Your task to perform on an android device: toggle javascript in the chrome app Image 0: 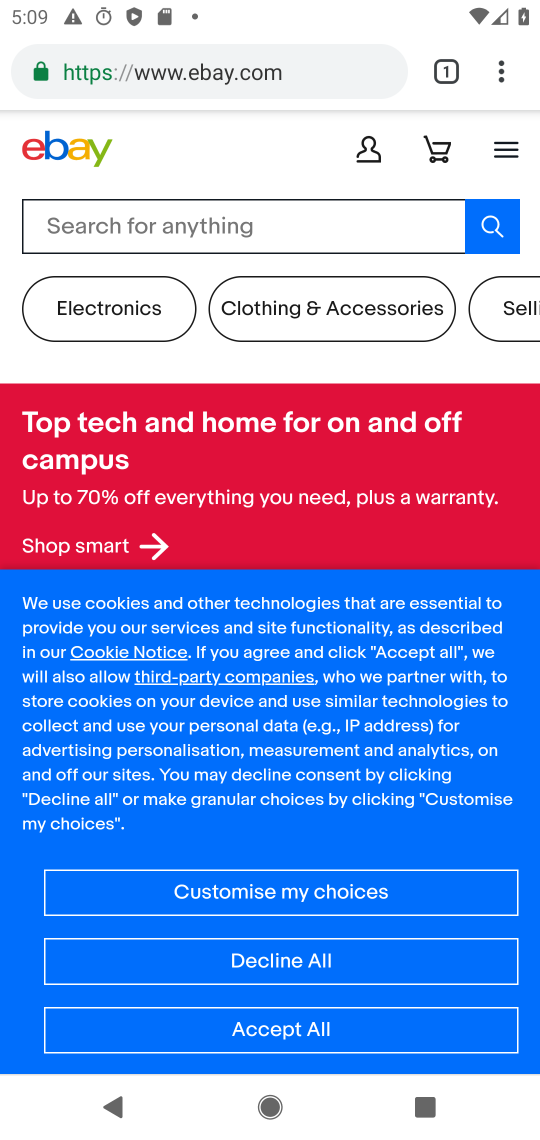
Step 0: press home button
Your task to perform on an android device: toggle javascript in the chrome app Image 1: 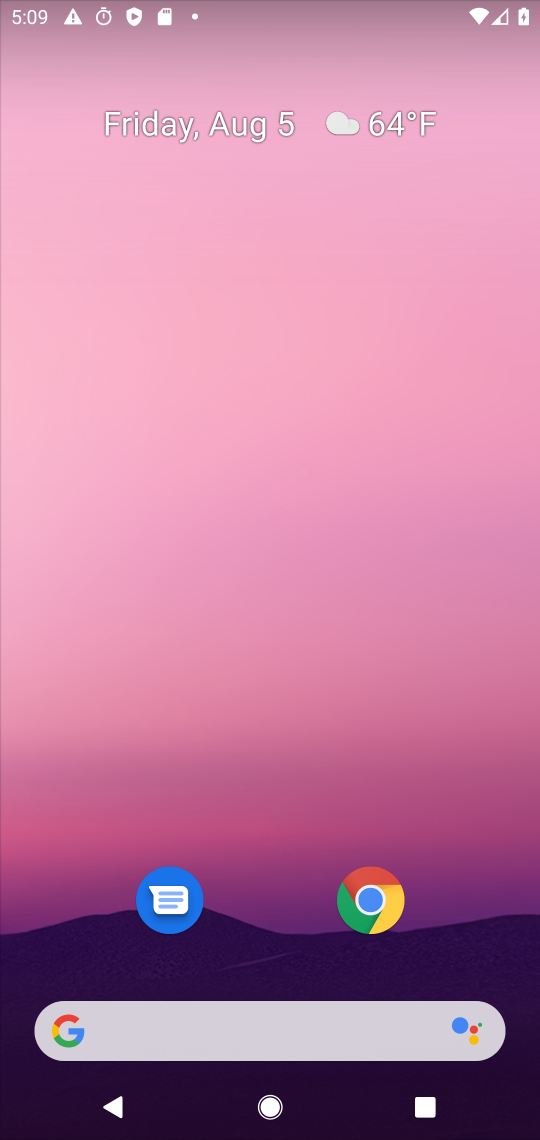
Step 1: click (332, 892)
Your task to perform on an android device: toggle javascript in the chrome app Image 2: 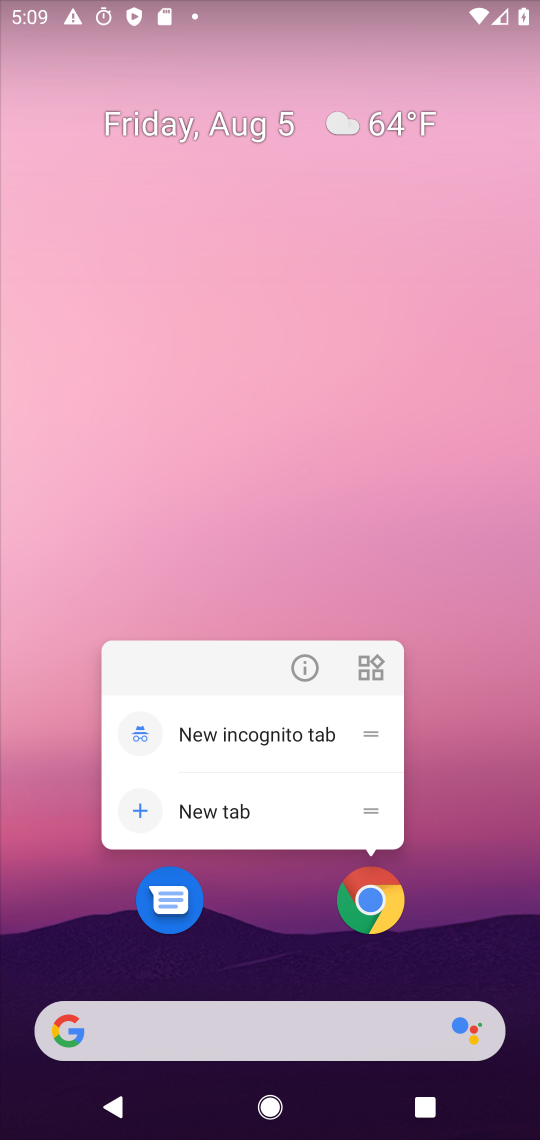
Step 2: click (354, 898)
Your task to perform on an android device: toggle javascript in the chrome app Image 3: 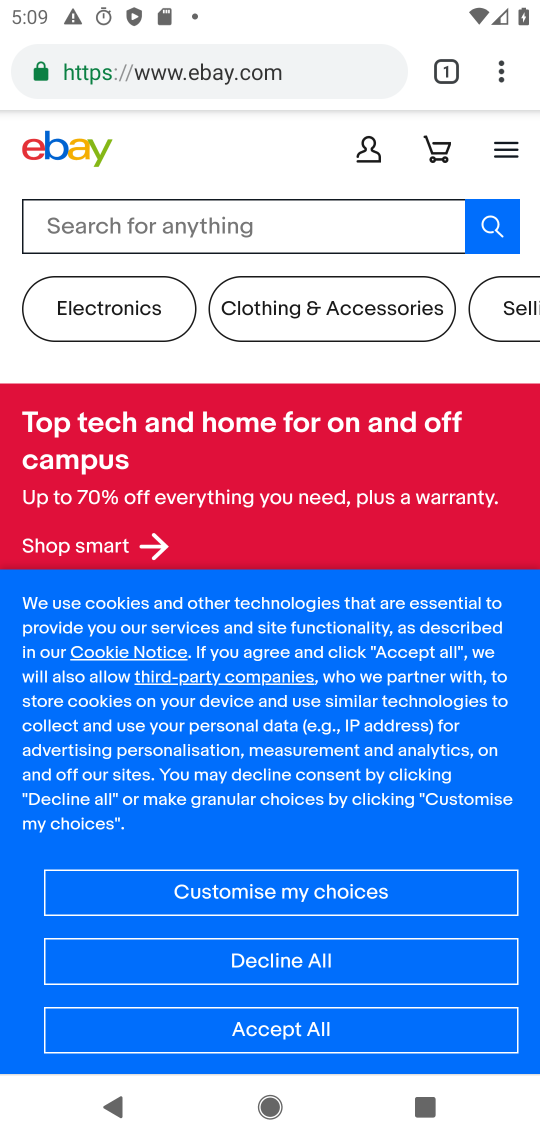
Step 3: drag from (488, 60) to (343, 877)
Your task to perform on an android device: toggle javascript in the chrome app Image 4: 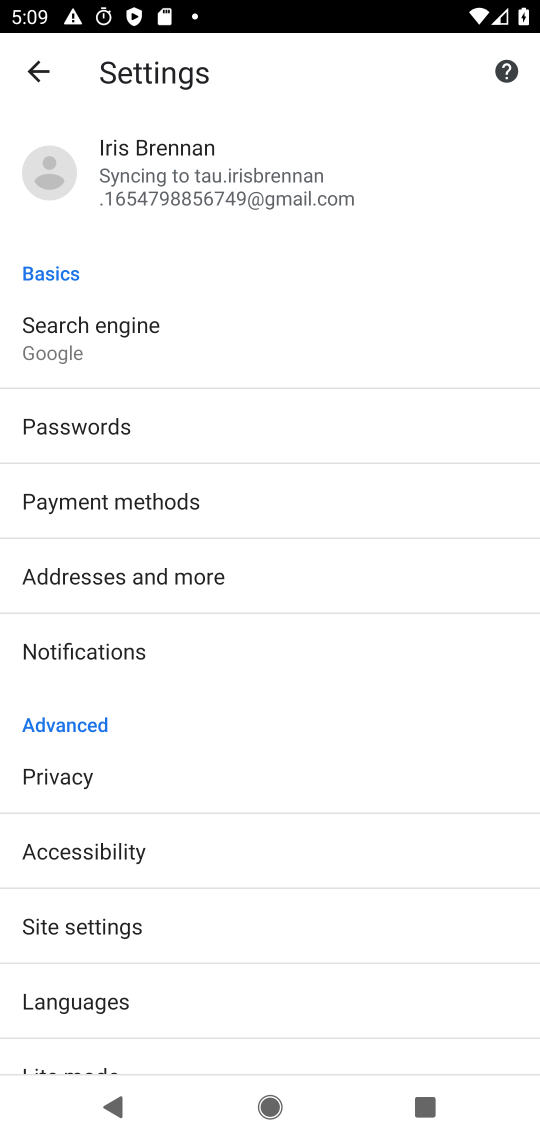
Step 4: click (259, 943)
Your task to perform on an android device: toggle javascript in the chrome app Image 5: 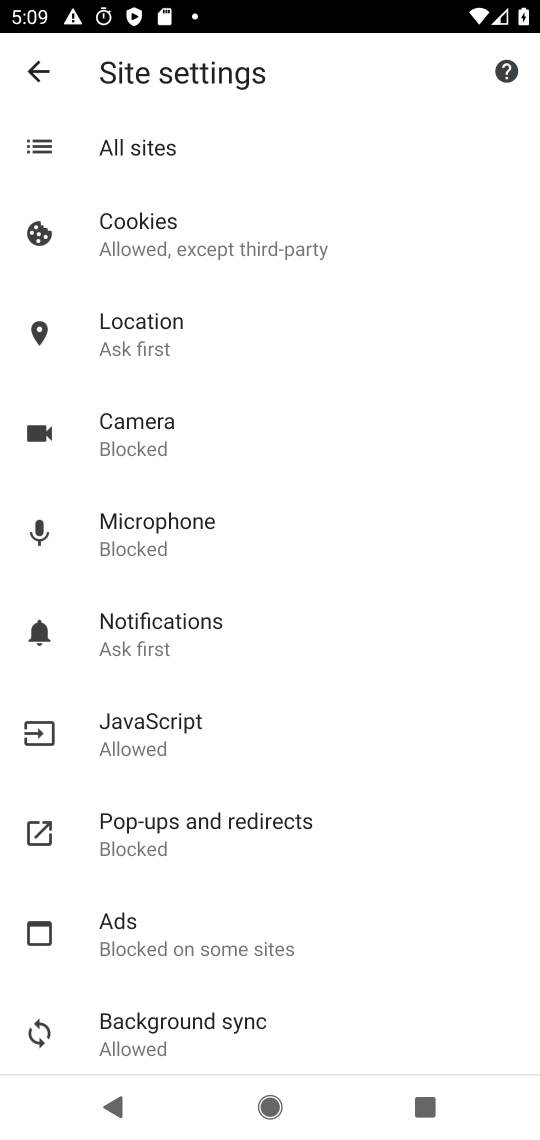
Step 5: click (204, 725)
Your task to perform on an android device: toggle javascript in the chrome app Image 6: 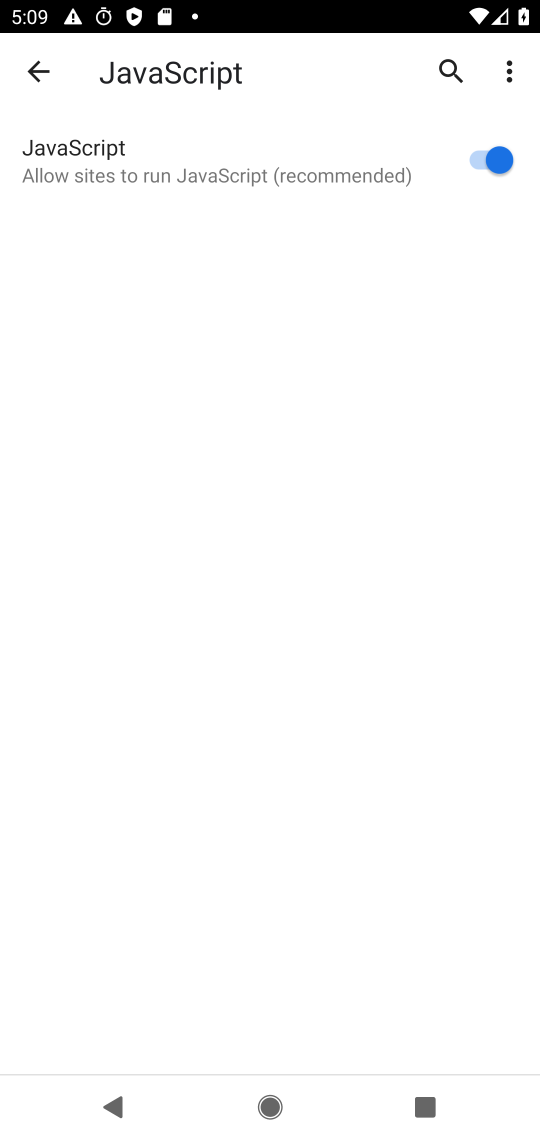
Step 6: click (491, 154)
Your task to perform on an android device: toggle javascript in the chrome app Image 7: 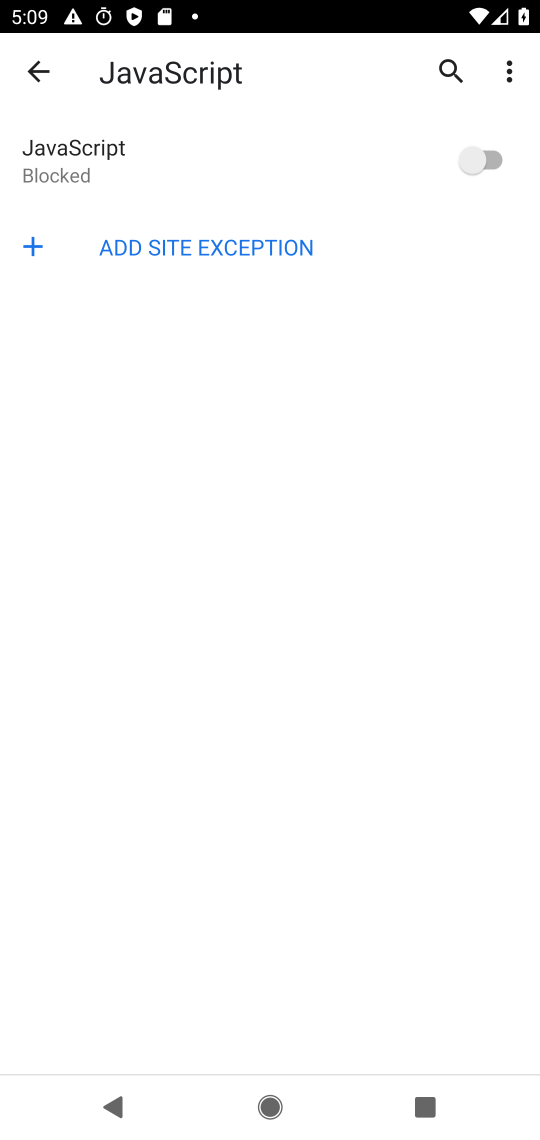
Step 7: task complete